Your task to perform on an android device: What's the weather? Image 0: 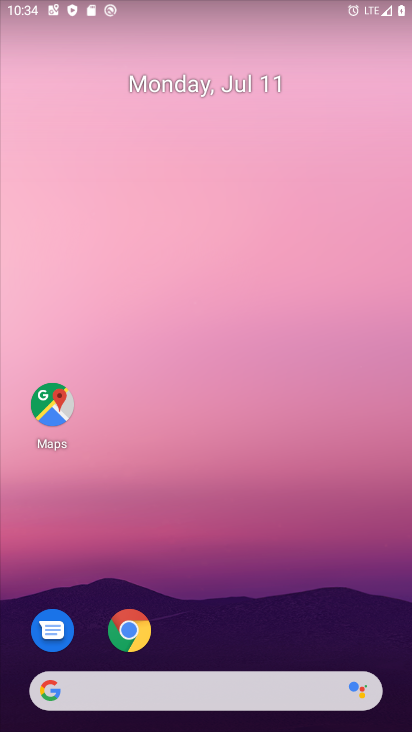
Step 0: drag from (315, 586) to (257, 16)
Your task to perform on an android device: What's the weather? Image 1: 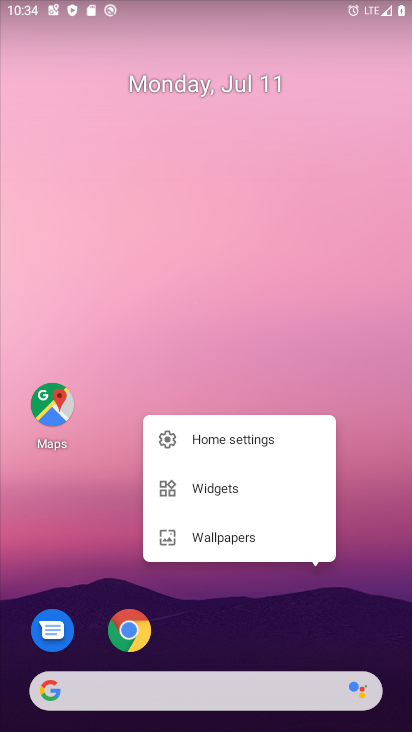
Step 1: click (271, 589)
Your task to perform on an android device: What's the weather? Image 2: 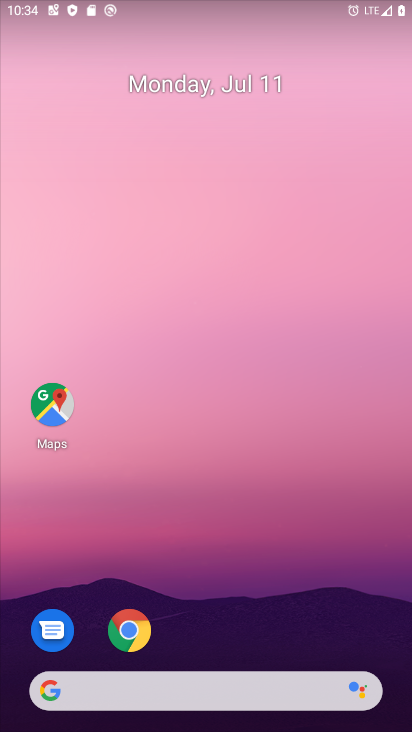
Step 2: drag from (248, 643) to (270, 43)
Your task to perform on an android device: What's the weather? Image 3: 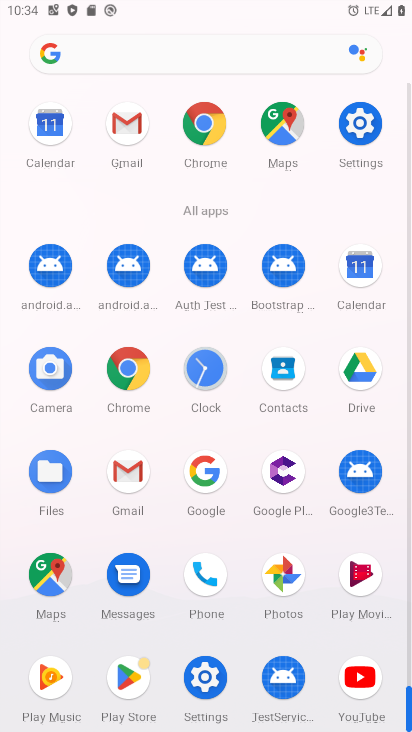
Step 3: click (48, 52)
Your task to perform on an android device: What's the weather? Image 4: 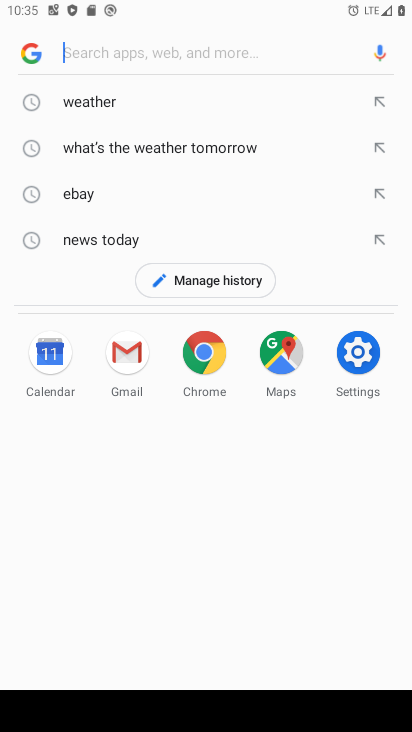
Step 4: click (26, 57)
Your task to perform on an android device: What's the weather? Image 5: 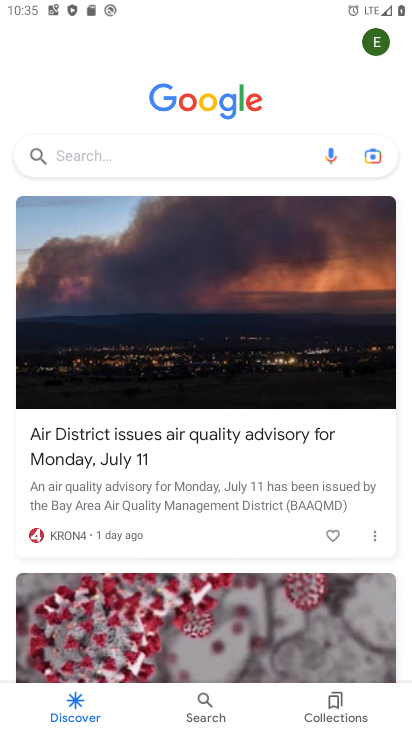
Step 5: click (207, 104)
Your task to perform on an android device: What's the weather? Image 6: 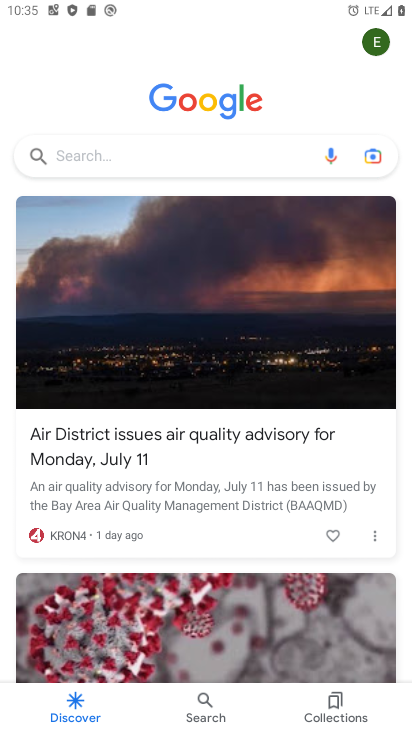
Step 6: click (207, 105)
Your task to perform on an android device: What's the weather? Image 7: 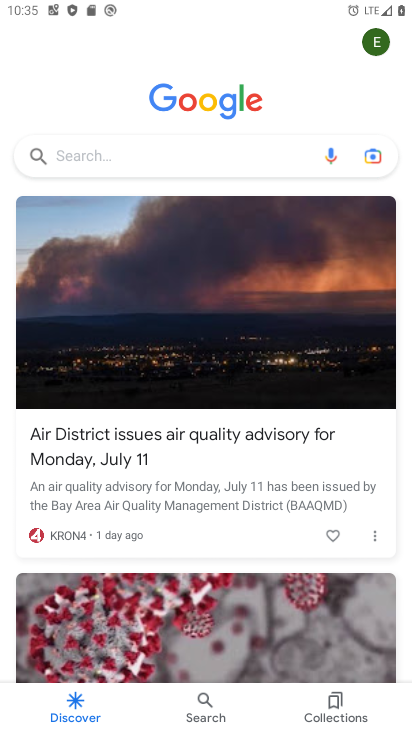
Step 7: click (207, 104)
Your task to perform on an android device: What's the weather? Image 8: 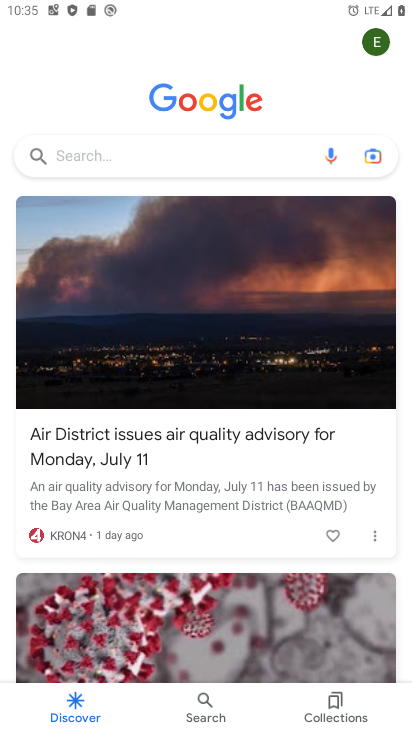
Step 8: click (256, 116)
Your task to perform on an android device: What's the weather? Image 9: 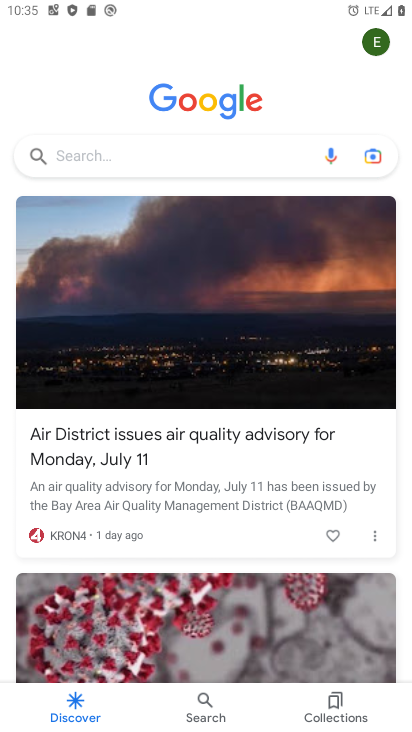
Step 9: click (202, 184)
Your task to perform on an android device: What's the weather? Image 10: 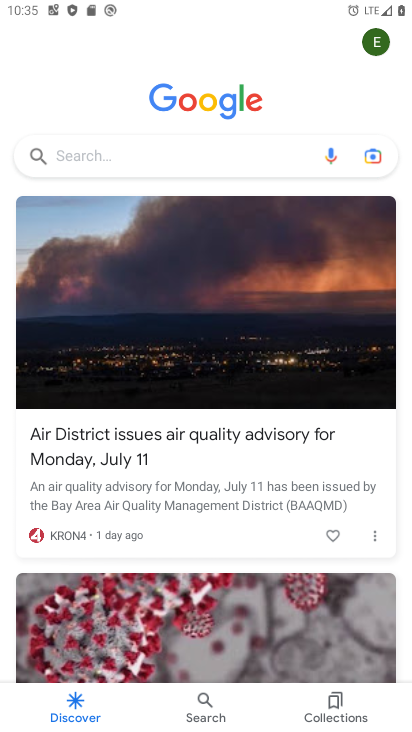
Step 10: click (173, 149)
Your task to perform on an android device: What's the weather? Image 11: 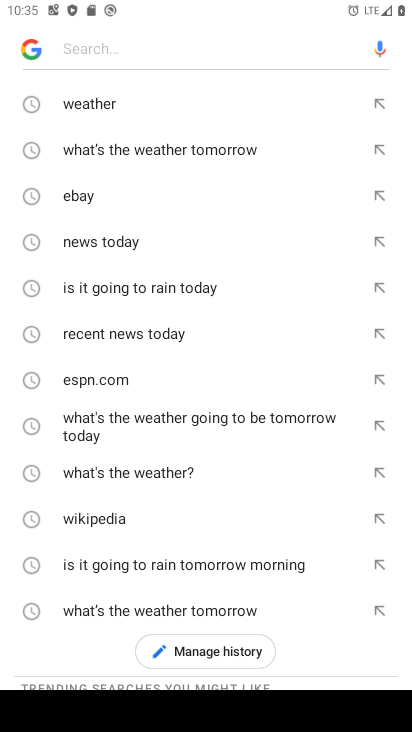
Step 11: click (53, 101)
Your task to perform on an android device: What's the weather? Image 12: 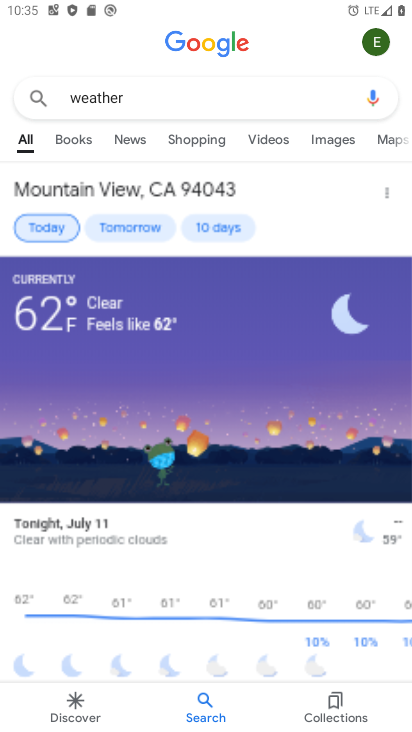
Step 12: drag from (214, 386) to (258, 176)
Your task to perform on an android device: What's the weather? Image 13: 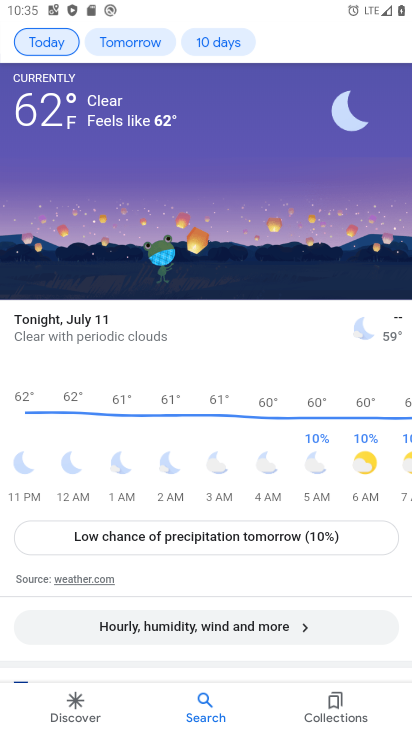
Step 13: click (367, 682)
Your task to perform on an android device: What's the weather? Image 14: 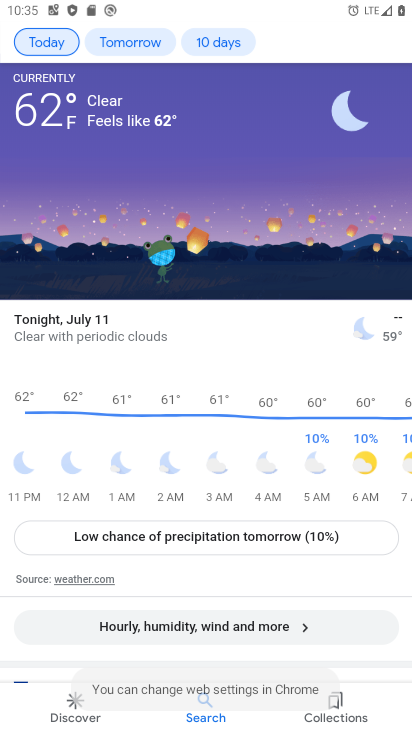
Step 14: task complete